Your task to perform on an android device: Open ESPN.com Image 0: 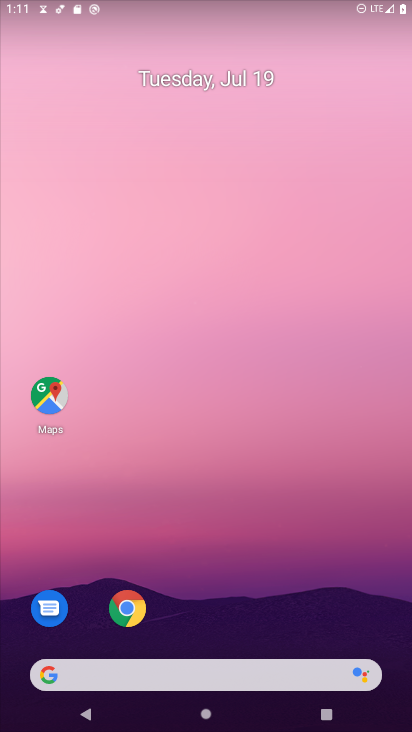
Step 0: drag from (326, 435) to (356, 0)
Your task to perform on an android device: Open ESPN.com Image 1: 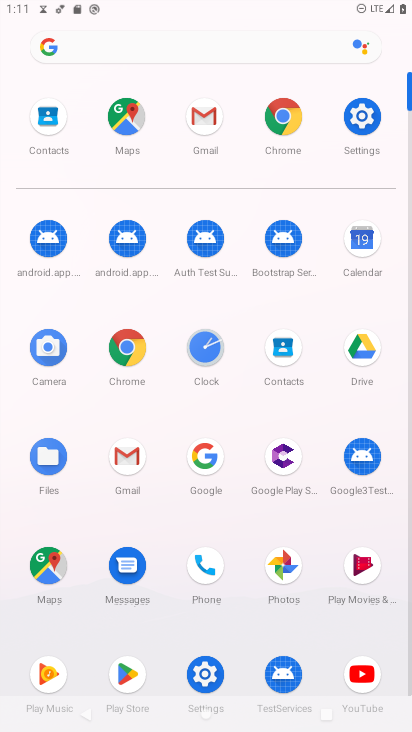
Step 1: click (118, 340)
Your task to perform on an android device: Open ESPN.com Image 2: 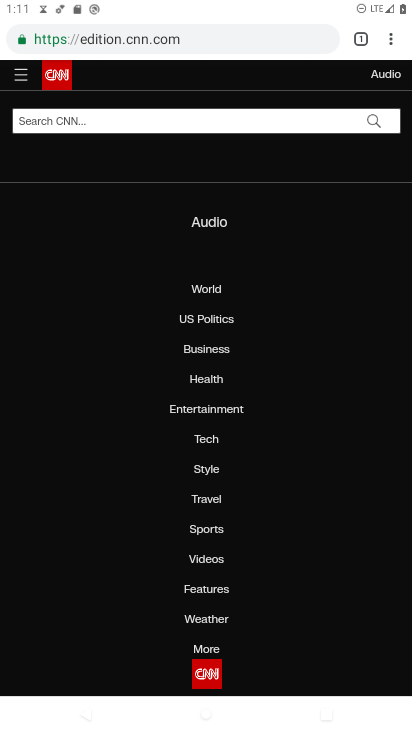
Step 2: type "espn.com"
Your task to perform on an android device: Open ESPN.com Image 3: 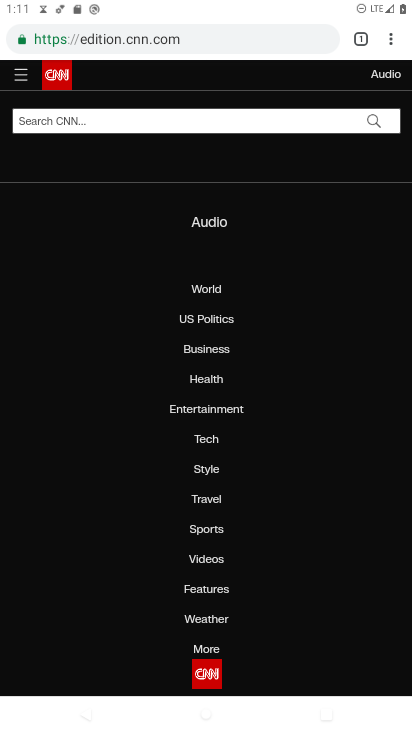
Step 3: task complete